Your task to perform on an android device: toggle javascript in the chrome app Image 0: 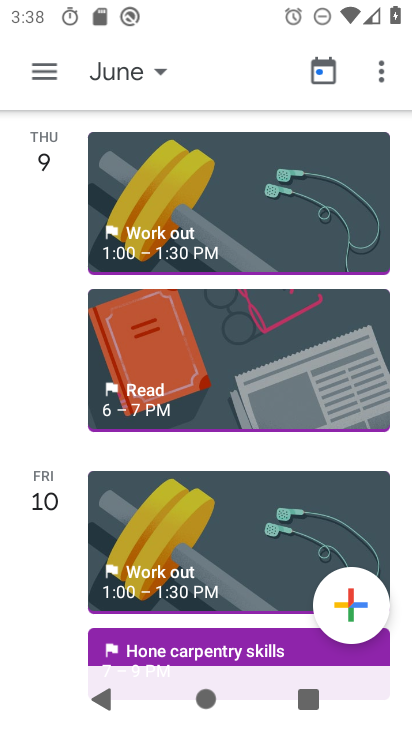
Step 0: press home button
Your task to perform on an android device: toggle javascript in the chrome app Image 1: 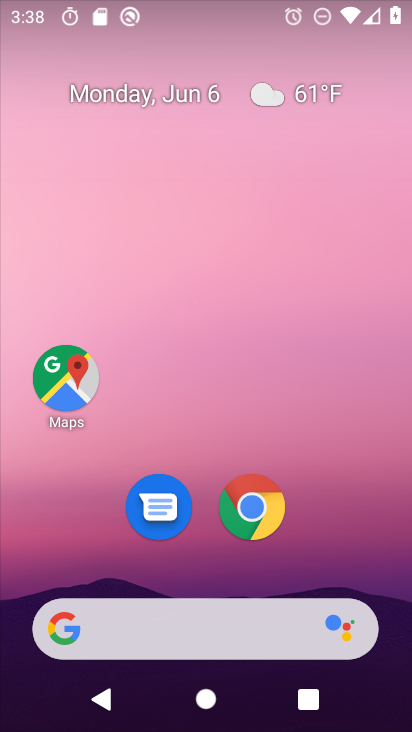
Step 1: click (251, 534)
Your task to perform on an android device: toggle javascript in the chrome app Image 2: 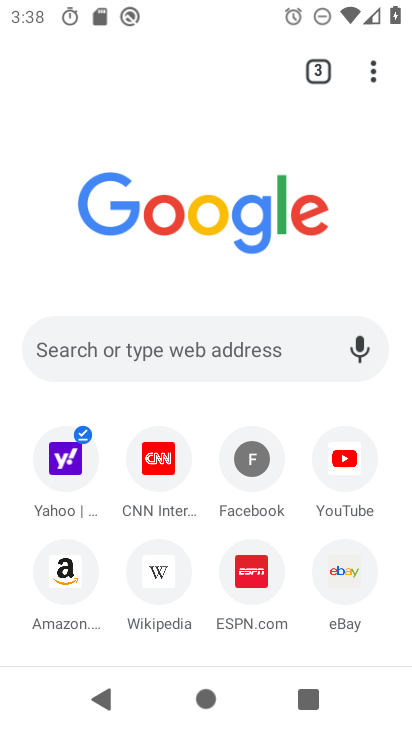
Step 2: click (372, 61)
Your task to perform on an android device: toggle javascript in the chrome app Image 3: 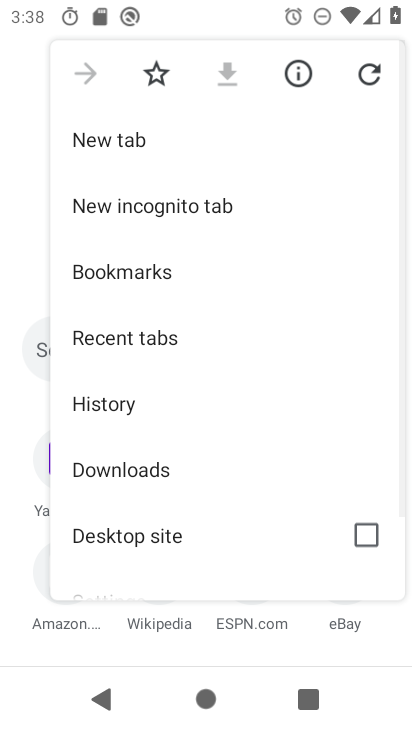
Step 3: drag from (161, 542) to (196, 305)
Your task to perform on an android device: toggle javascript in the chrome app Image 4: 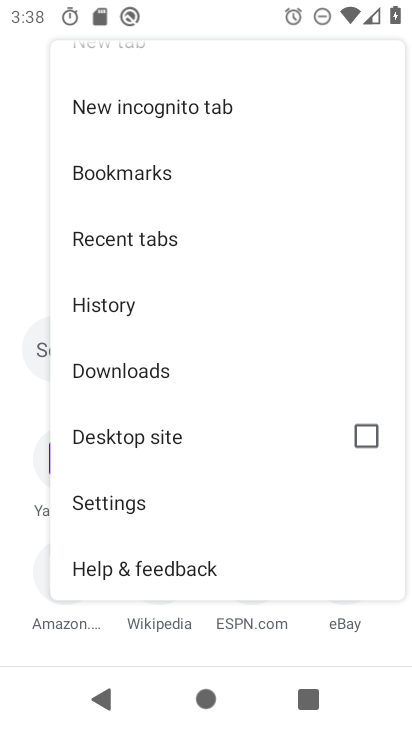
Step 4: click (130, 494)
Your task to perform on an android device: toggle javascript in the chrome app Image 5: 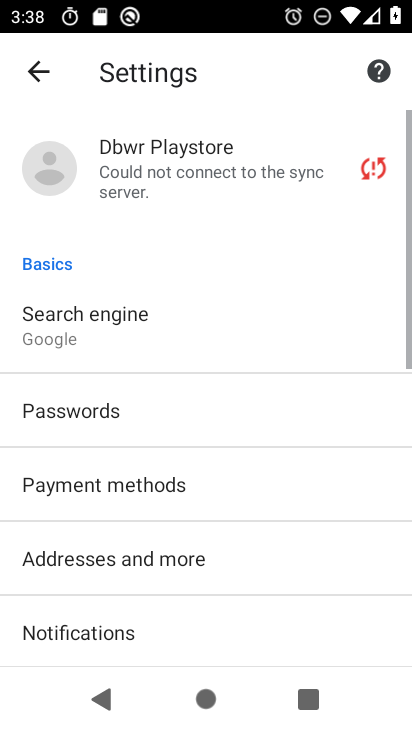
Step 5: drag from (171, 596) to (231, 289)
Your task to perform on an android device: toggle javascript in the chrome app Image 6: 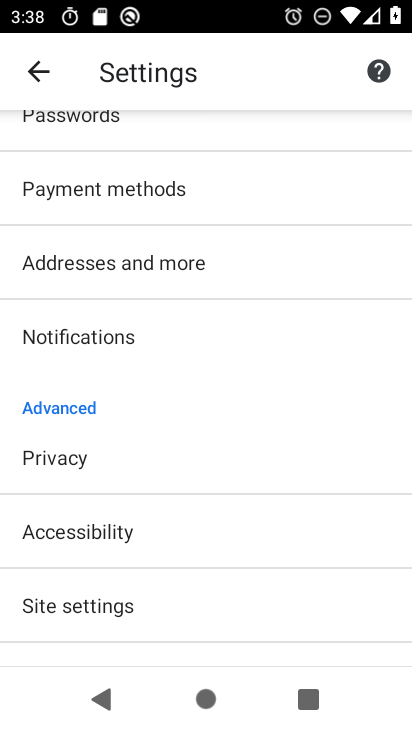
Step 6: click (147, 598)
Your task to perform on an android device: toggle javascript in the chrome app Image 7: 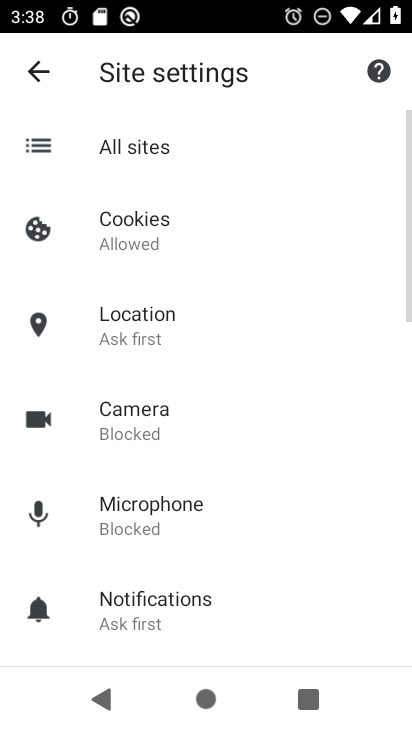
Step 7: drag from (208, 577) to (250, 349)
Your task to perform on an android device: toggle javascript in the chrome app Image 8: 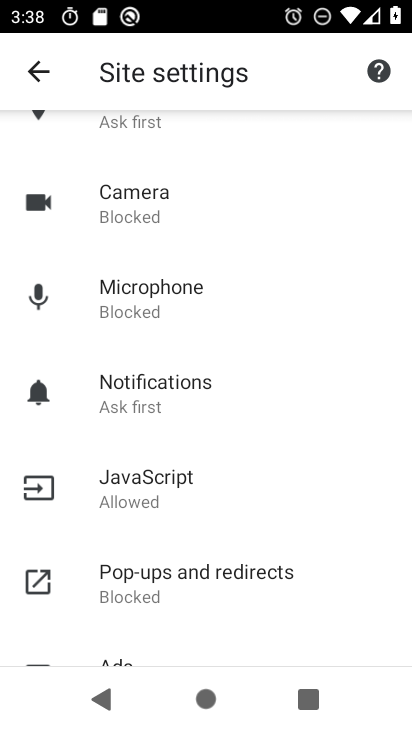
Step 8: click (224, 463)
Your task to perform on an android device: toggle javascript in the chrome app Image 9: 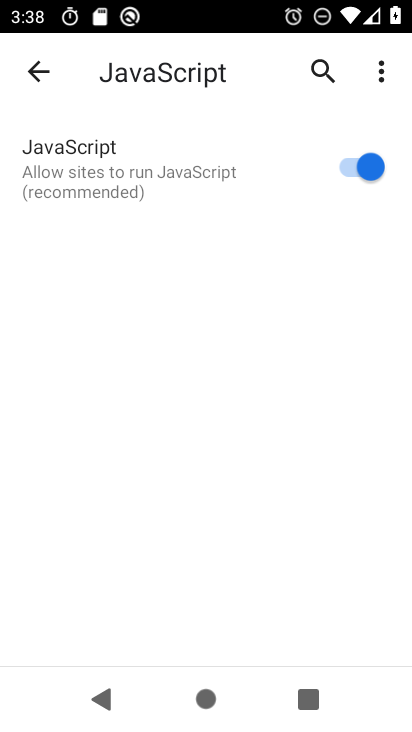
Step 9: click (341, 157)
Your task to perform on an android device: toggle javascript in the chrome app Image 10: 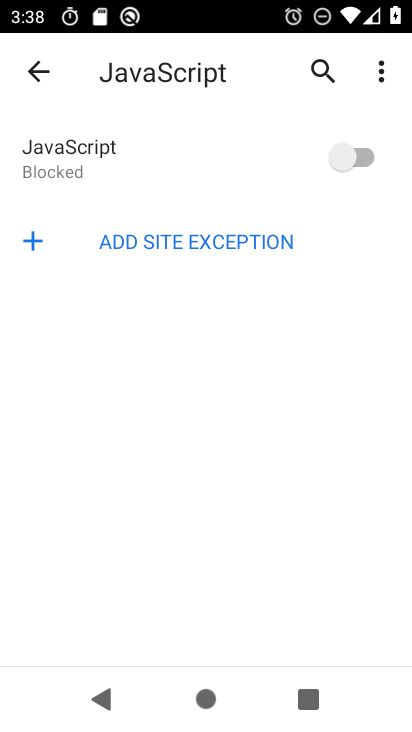
Step 10: task complete